Your task to perform on an android device: turn on the 24-hour format for clock Image 0: 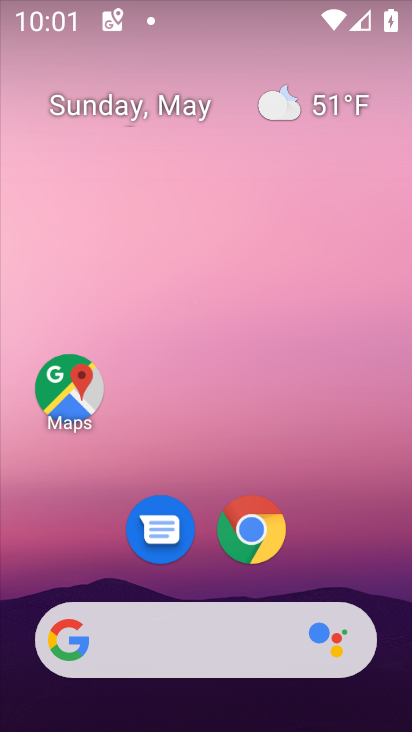
Step 0: drag from (317, 587) to (267, 120)
Your task to perform on an android device: turn on the 24-hour format for clock Image 1: 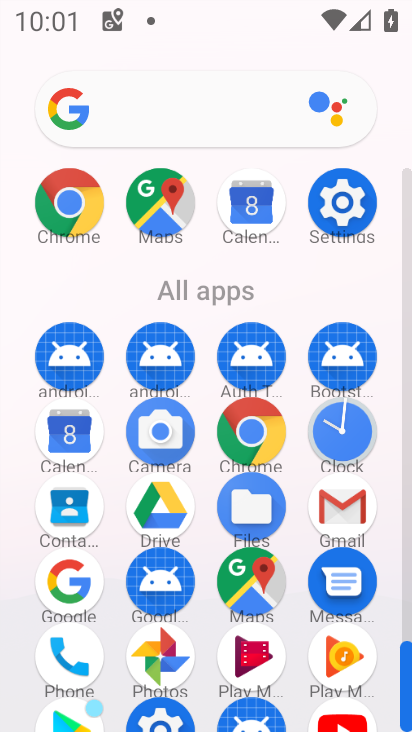
Step 1: click (344, 421)
Your task to perform on an android device: turn on the 24-hour format for clock Image 2: 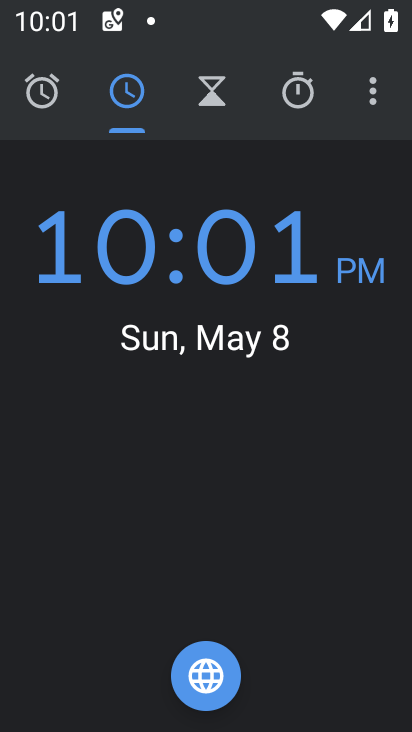
Step 2: click (362, 85)
Your task to perform on an android device: turn on the 24-hour format for clock Image 3: 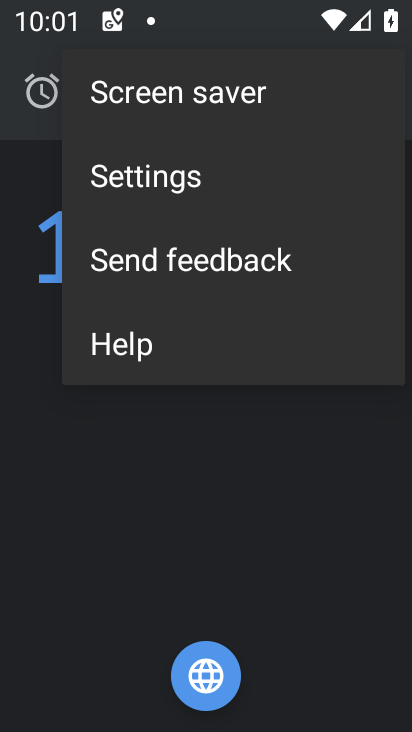
Step 3: click (173, 159)
Your task to perform on an android device: turn on the 24-hour format for clock Image 4: 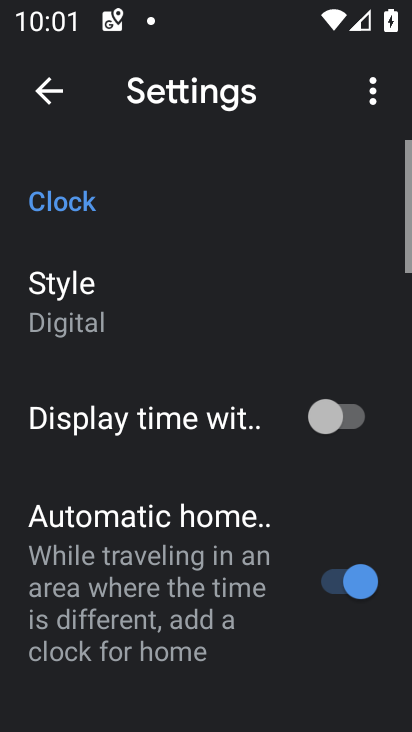
Step 4: drag from (236, 658) to (248, 72)
Your task to perform on an android device: turn on the 24-hour format for clock Image 5: 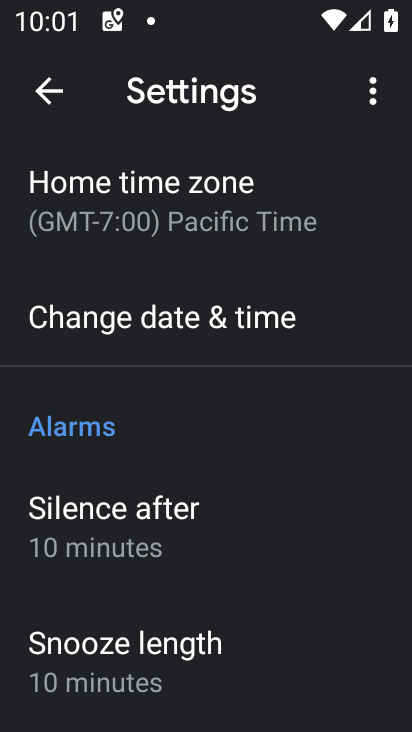
Step 5: click (204, 332)
Your task to perform on an android device: turn on the 24-hour format for clock Image 6: 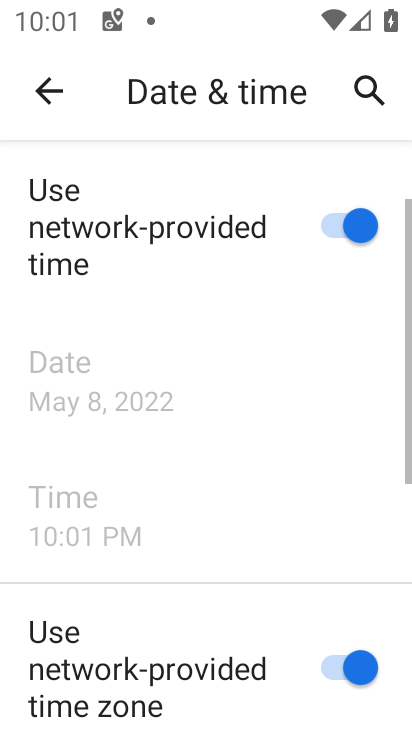
Step 6: drag from (231, 641) to (211, 117)
Your task to perform on an android device: turn on the 24-hour format for clock Image 7: 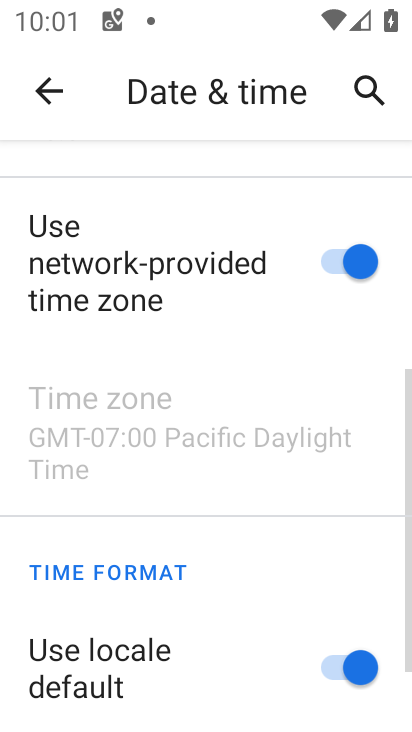
Step 7: drag from (209, 650) to (188, 267)
Your task to perform on an android device: turn on the 24-hour format for clock Image 8: 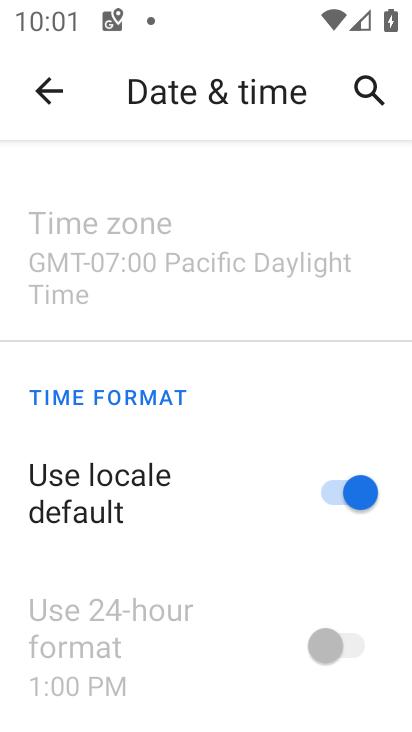
Step 8: click (346, 498)
Your task to perform on an android device: turn on the 24-hour format for clock Image 9: 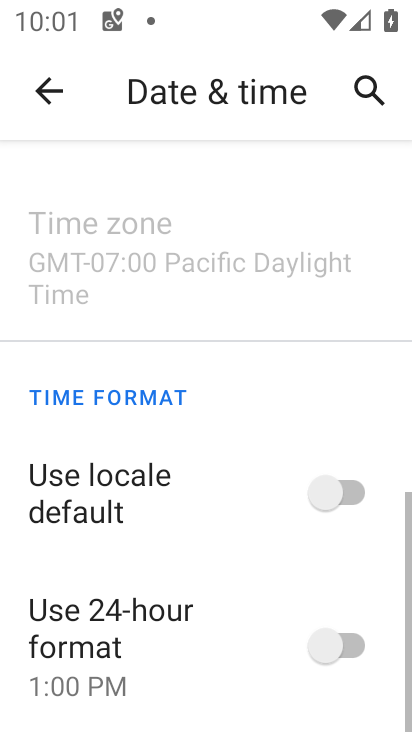
Step 9: click (352, 647)
Your task to perform on an android device: turn on the 24-hour format for clock Image 10: 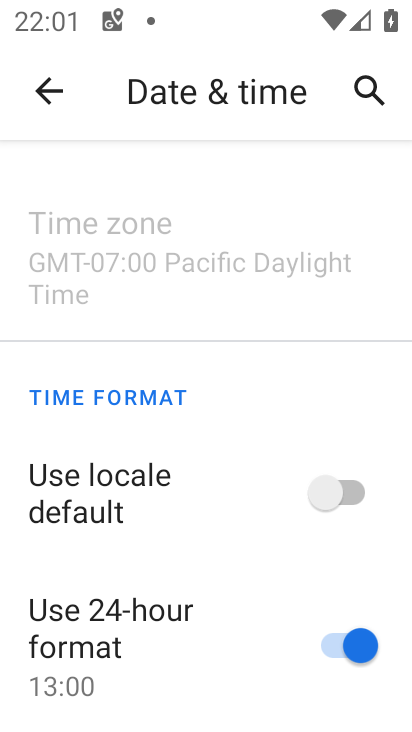
Step 10: task complete